Your task to perform on an android device: Open notification settings Image 0: 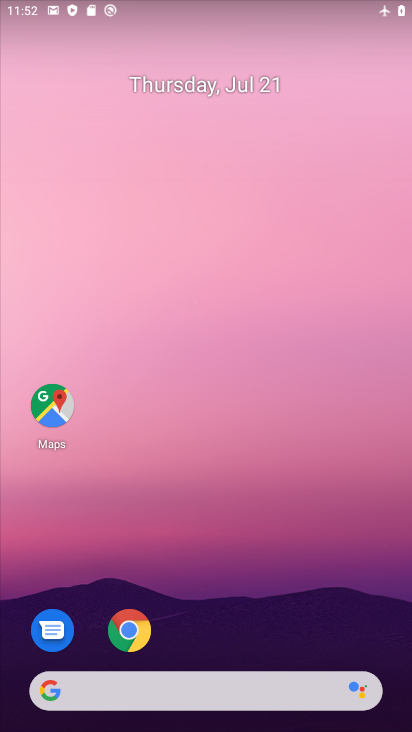
Step 0: drag from (178, 667) to (258, 239)
Your task to perform on an android device: Open notification settings Image 1: 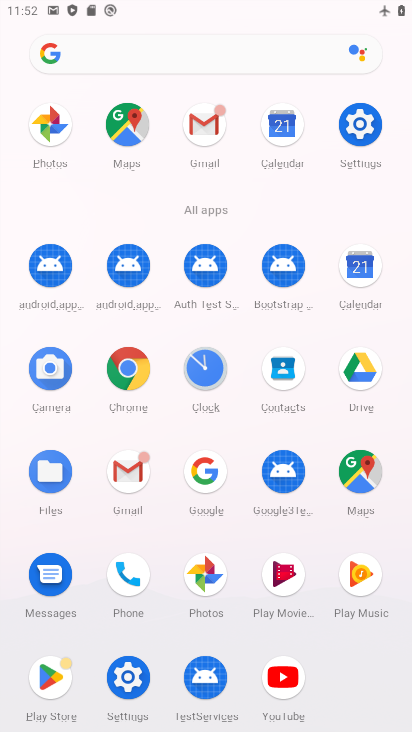
Step 1: click (106, 672)
Your task to perform on an android device: Open notification settings Image 2: 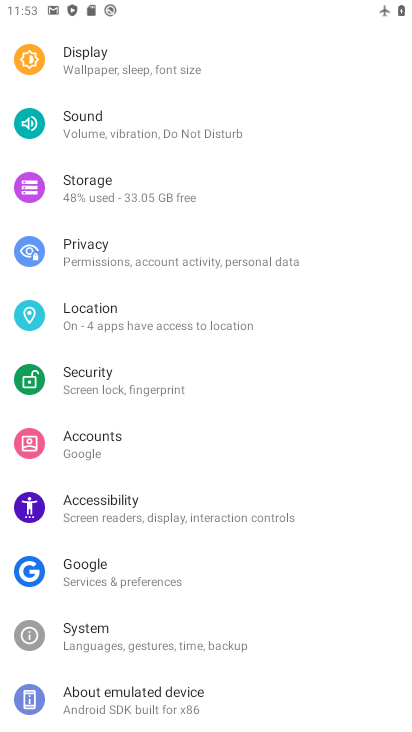
Step 2: drag from (159, 295) to (175, 646)
Your task to perform on an android device: Open notification settings Image 3: 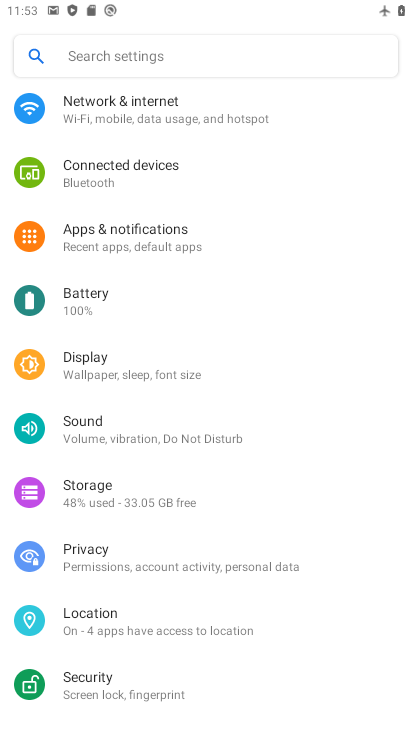
Step 3: click (58, 244)
Your task to perform on an android device: Open notification settings Image 4: 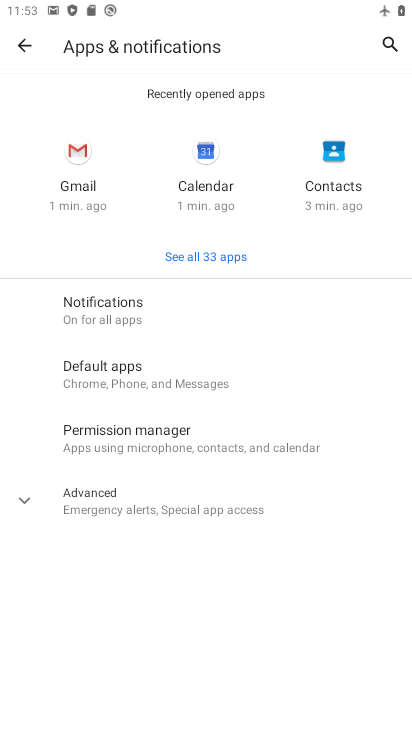
Step 4: click (119, 320)
Your task to perform on an android device: Open notification settings Image 5: 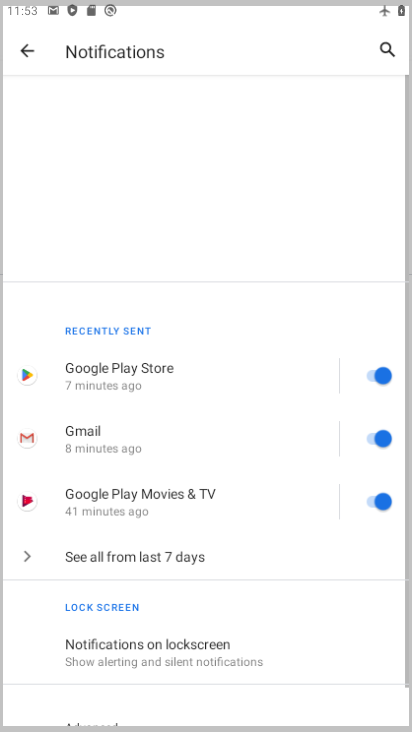
Step 5: task complete